Your task to perform on an android device: Clear the shopping cart on bestbuy. Image 0: 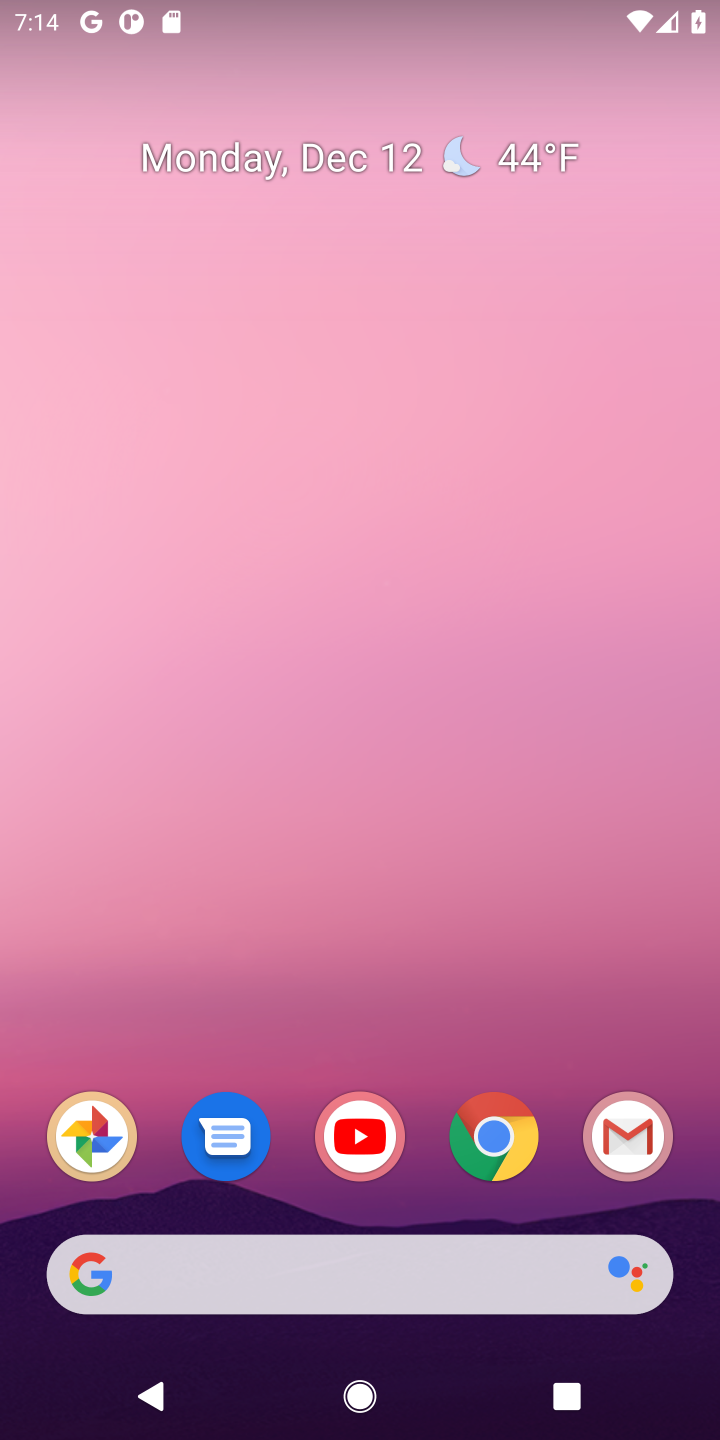
Step 0: click (494, 1162)
Your task to perform on an android device: Clear the shopping cart on bestbuy. Image 1: 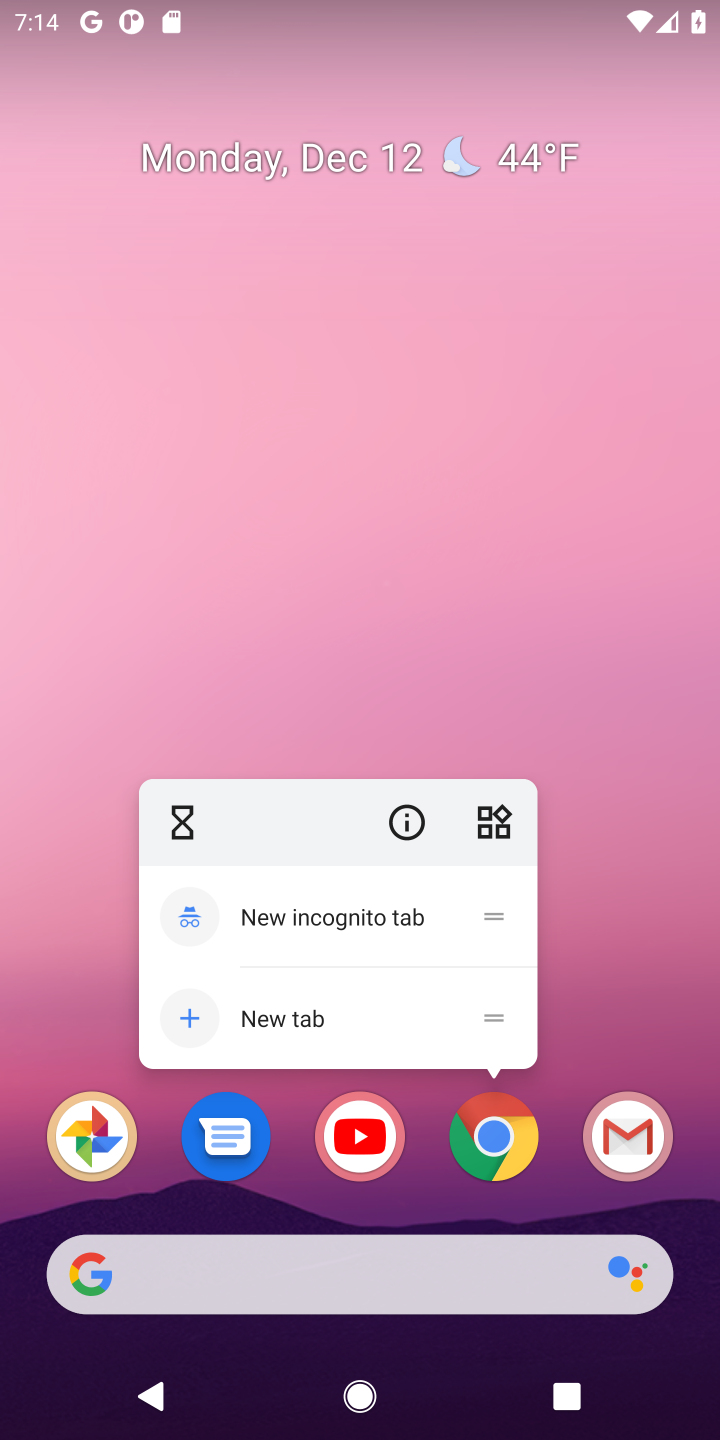
Step 1: click (509, 1139)
Your task to perform on an android device: Clear the shopping cart on bestbuy. Image 2: 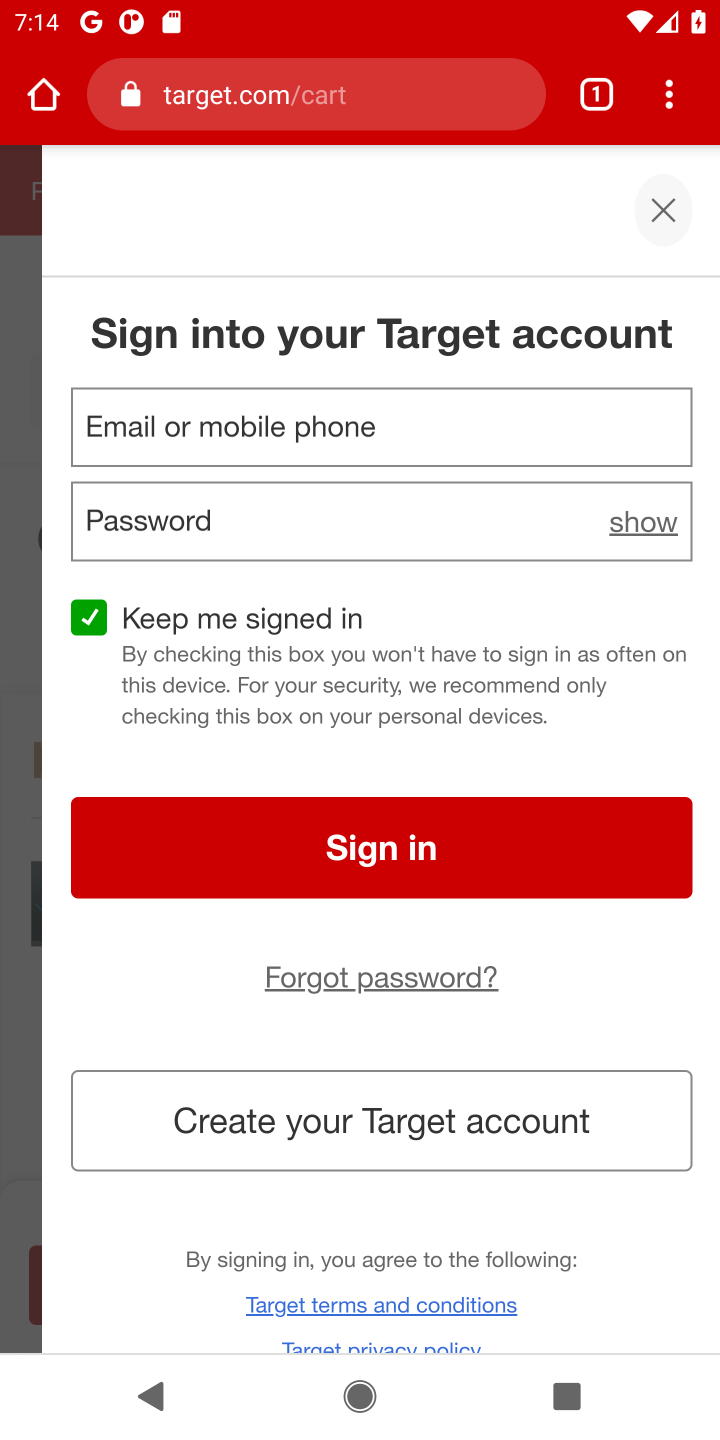
Step 2: click (268, 100)
Your task to perform on an android device: Clear the shopping cart on bestbuy. Image 3: 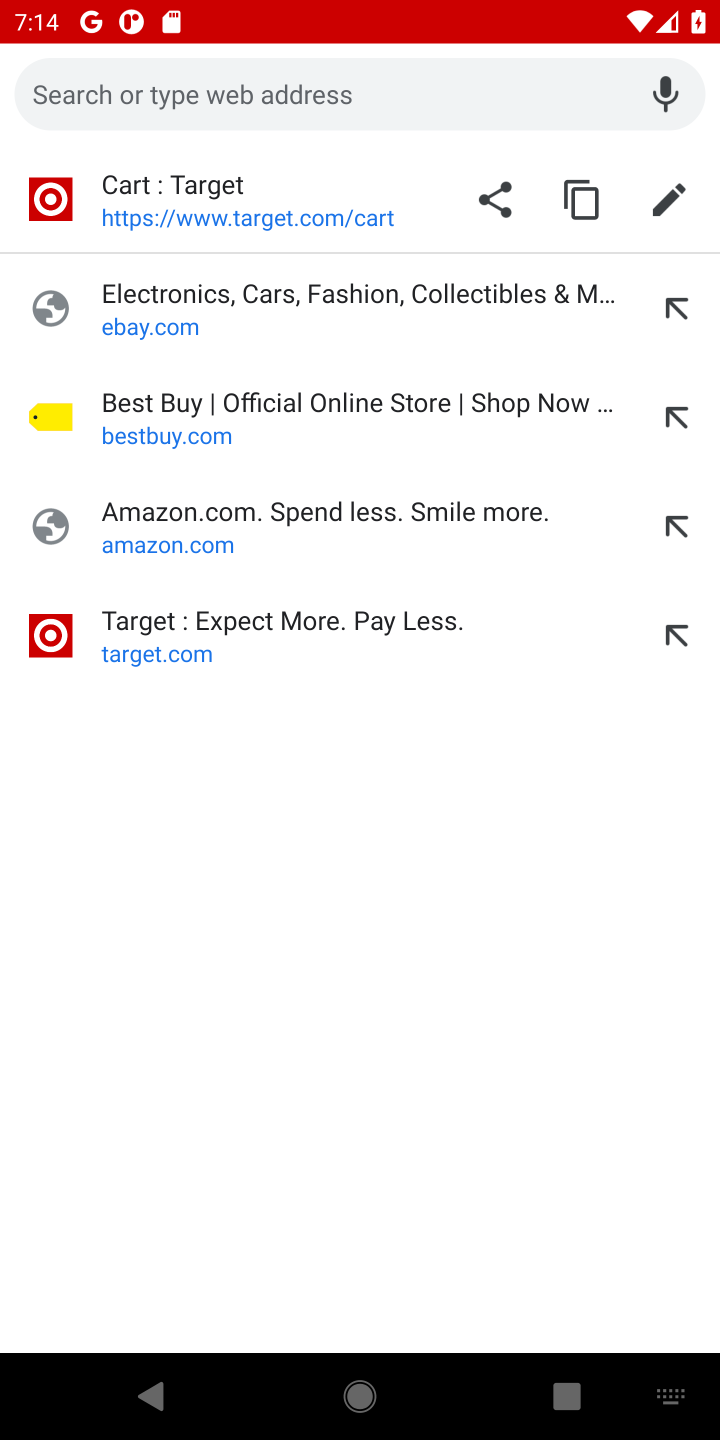
Step 3: click (150, 424)
Your task to perform on an android device: Clear the shopping cart on bestbuy. Image 4: 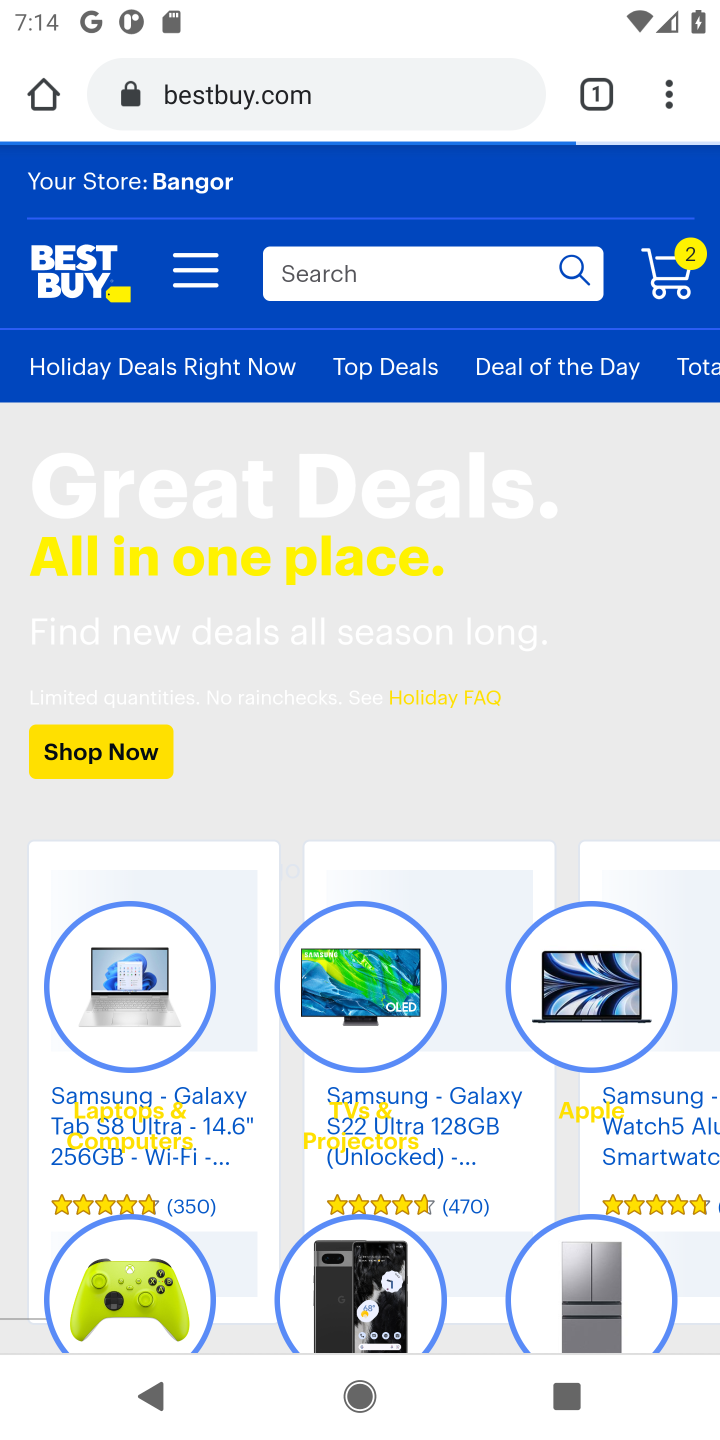
Step 4: click (671, 286)
Your task to perform on an android device: Clear the shopping cart on bestbuy. Image 5: 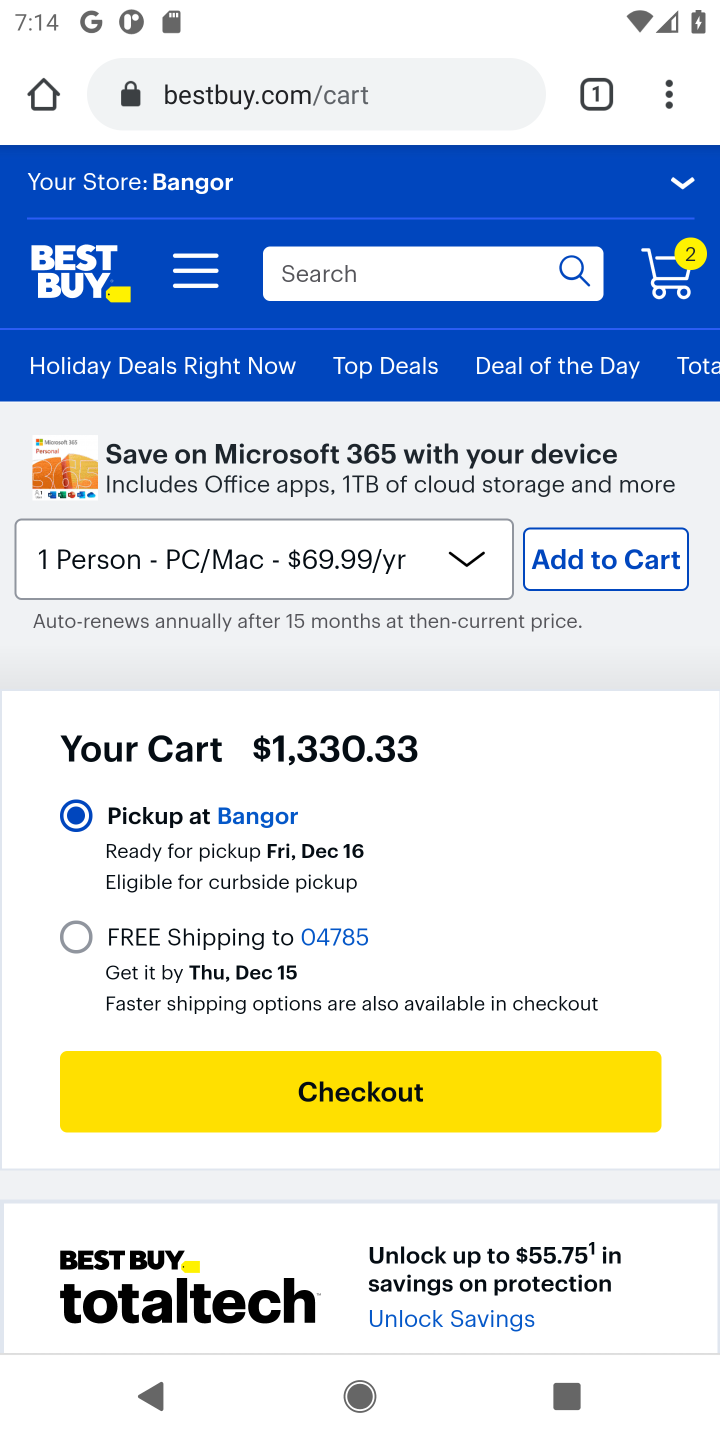
Step 5: drag from (552, 939) to (478, 340)
Your task to perform on an android device: Clear the shopping cart on bestbuy. Image 6: 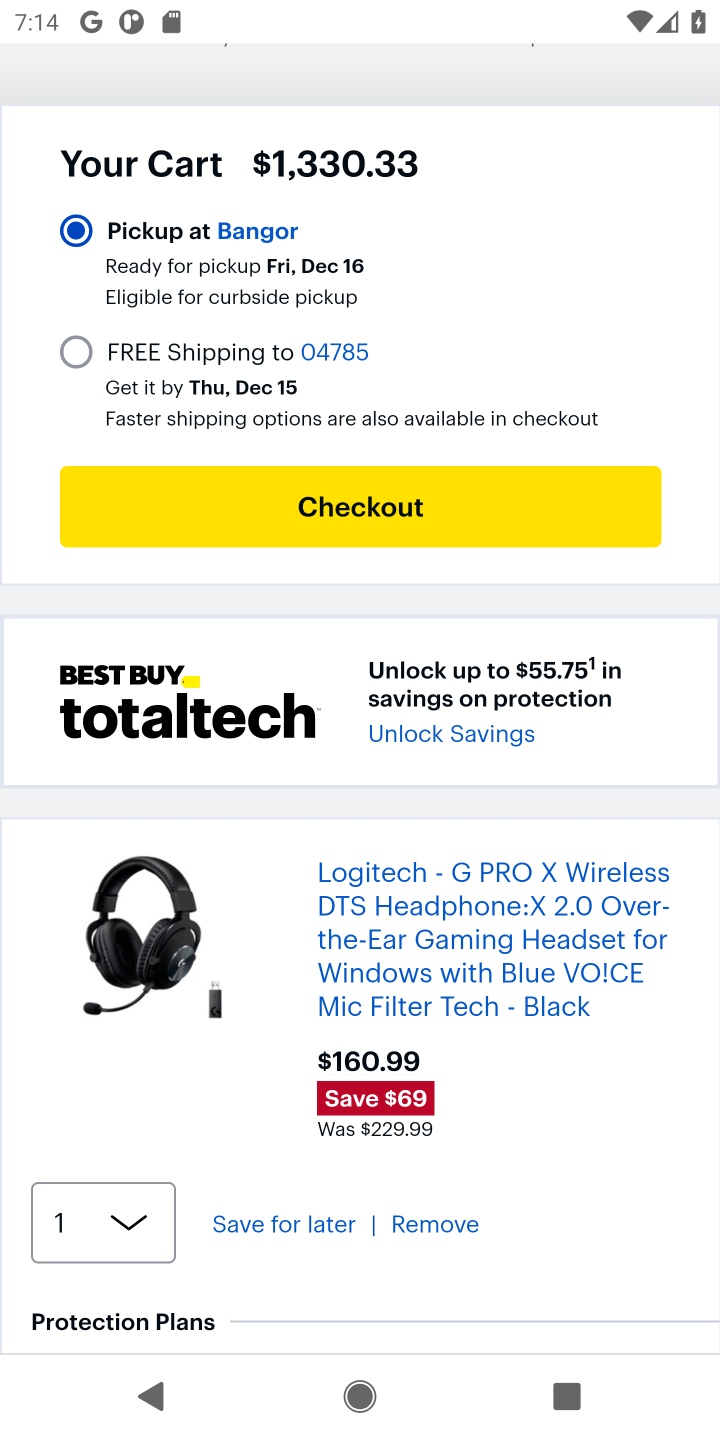
Step 6: click (418, 1229)
Your task to perform on an android device: Clear the shopping cart on bestbuy. Image 7: 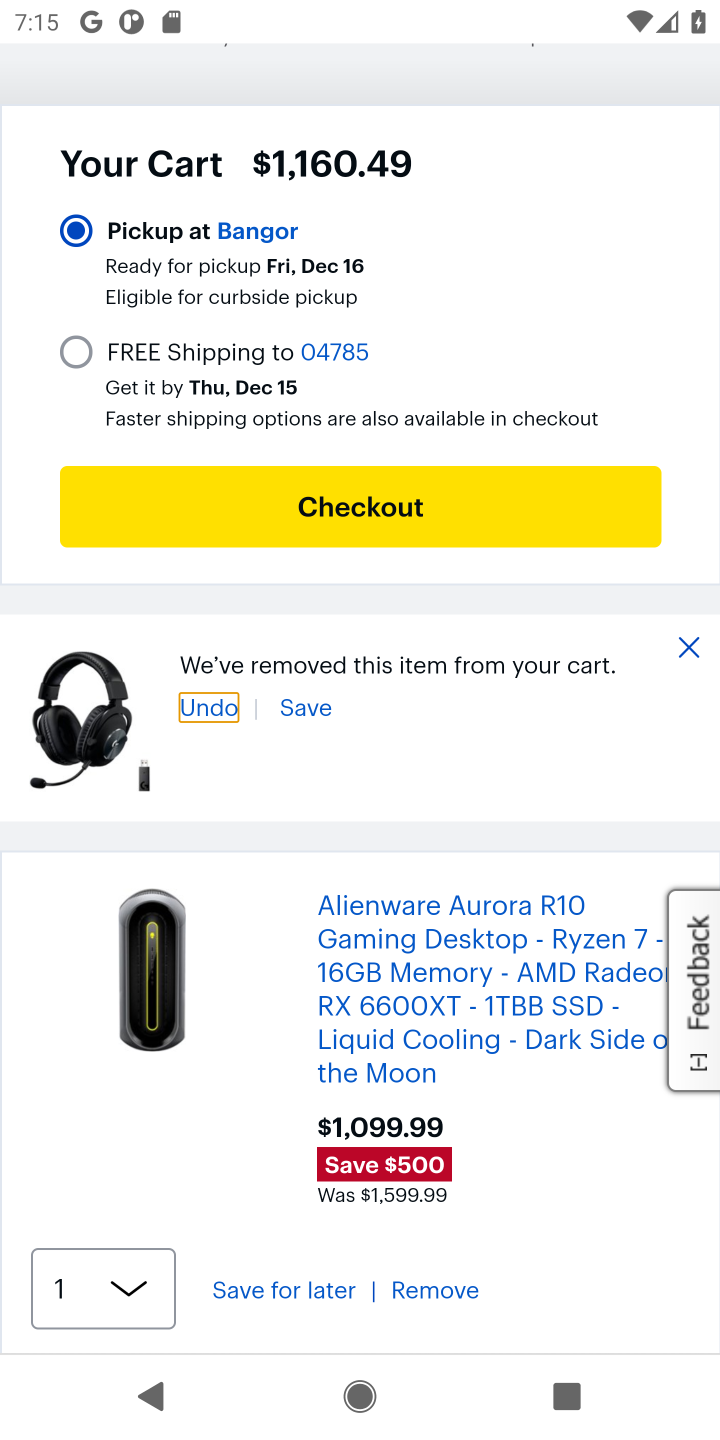
Step 7: click (418, 1281)
Your task to perform on an android device: Clear the shopping cart on bestbuy. Image 8: 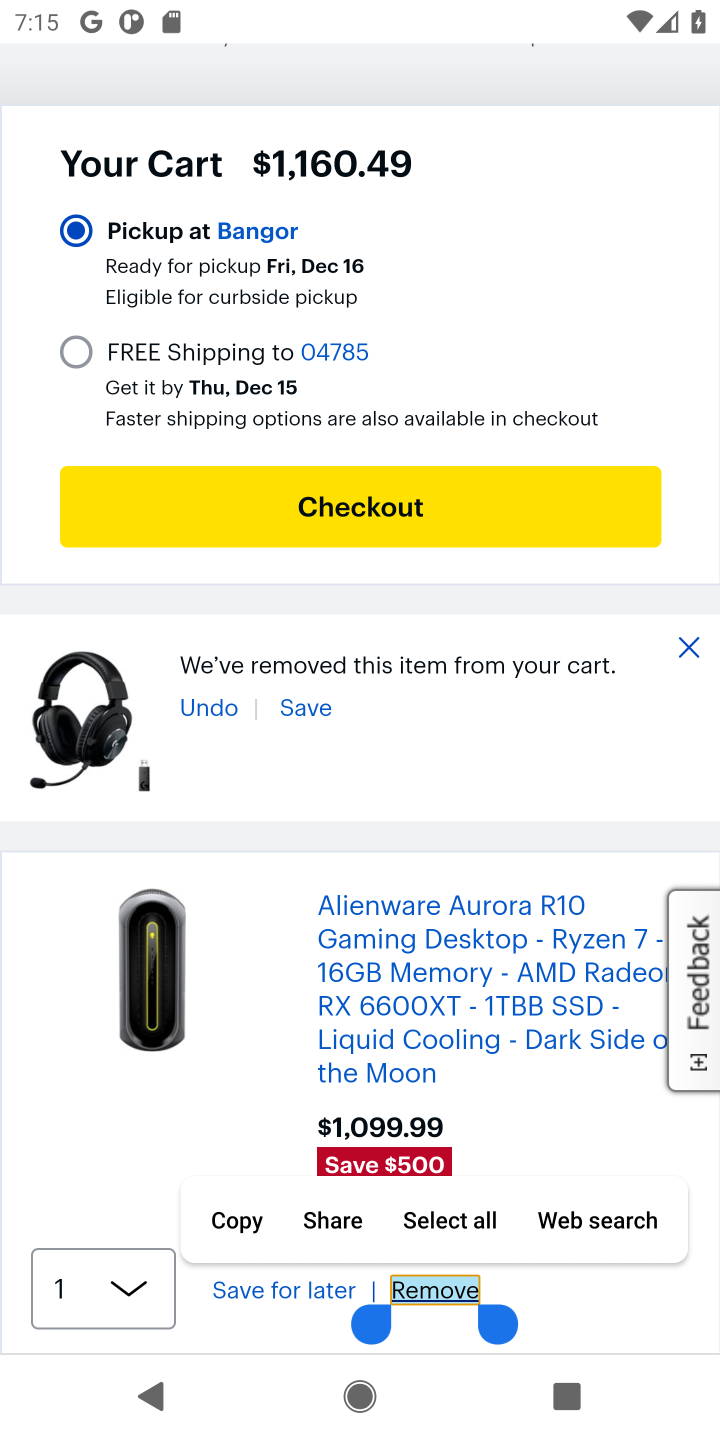
Step 8: click (418, 1292)
Your task to perform on an android device: Clear the shopping cart on bestbuy. Image 9: 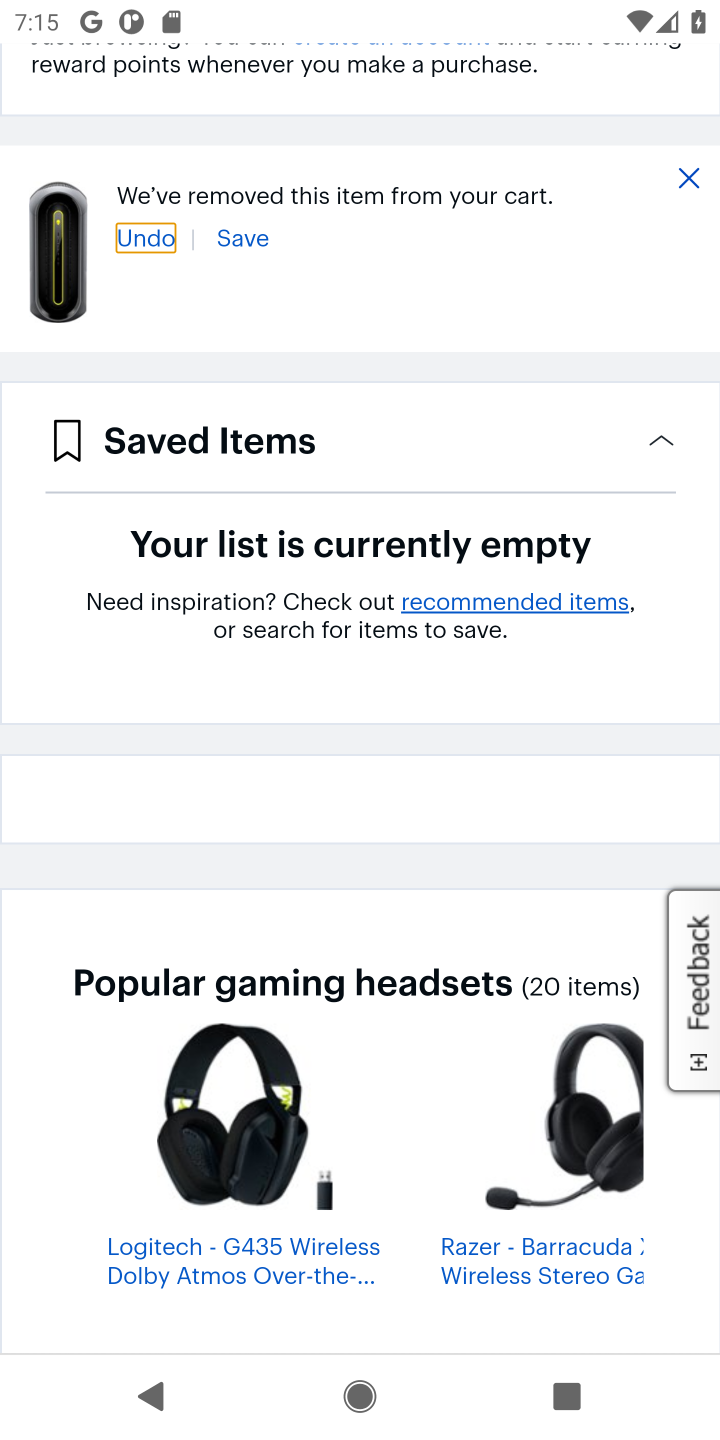
Step 9: task complete